Your task to perform on an android device: search for starred emails in the gmail app Image 0: 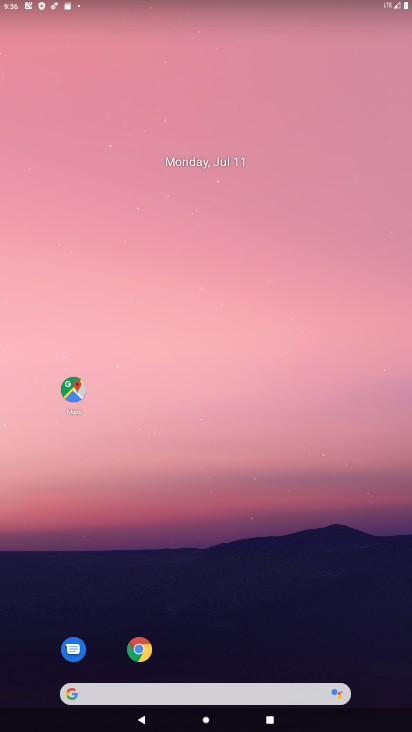
Step 0: drag from (193, 610) to (179, 44)
Your task to perform on an android device: search for starred emails in the gmail app Image 1: 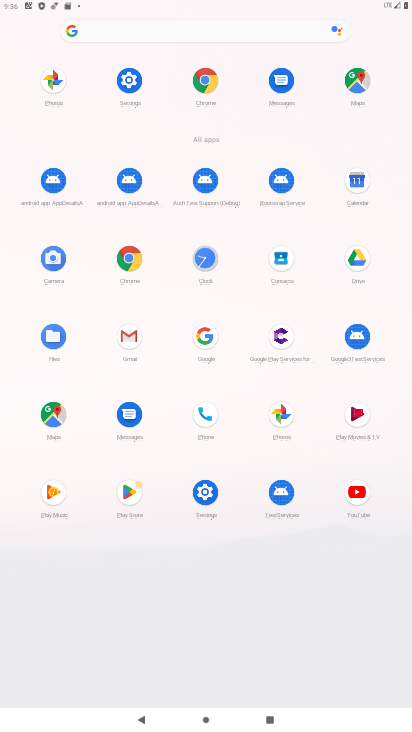
Step 1: click (124, 339)
Your task to perform on an android device: search for starred emails in the gmail app Image 2: 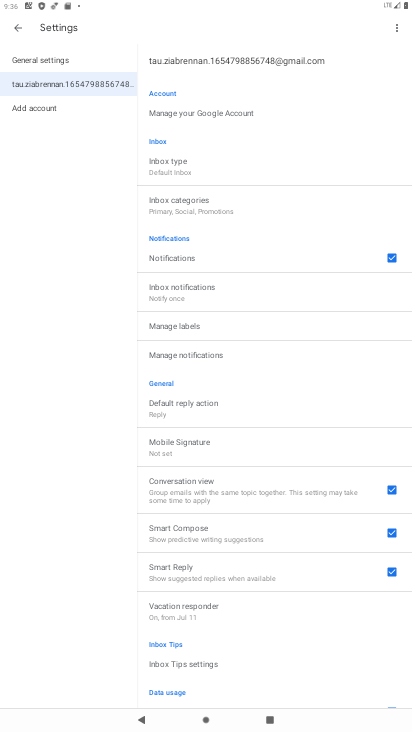
Step 2: click (15, 31)
Your task to perform on an android device: search for starred emails in the gmail app Image 3: 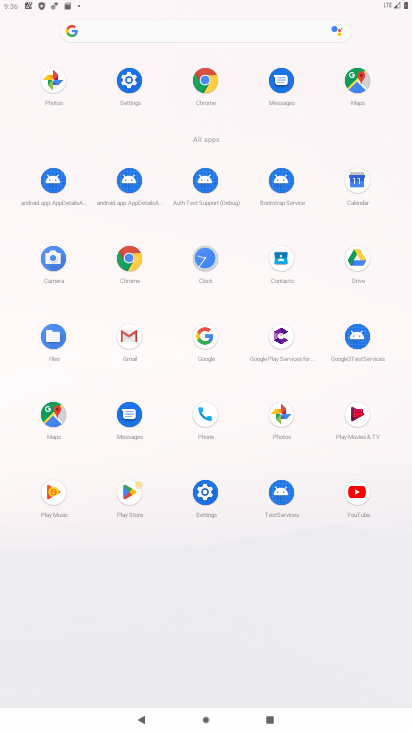
Step 3: click (133, 342)
Your task to perform on an android device: search for starred emails in the gmail app Image 4: 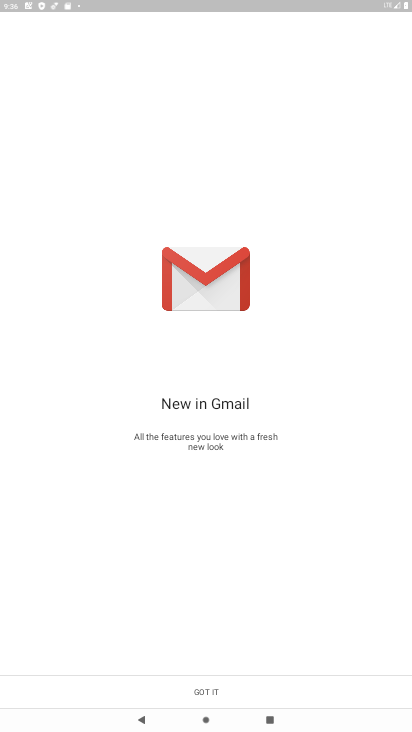
Step 4: click (184, 685)
Your task to perform on an android device: search for starred emails in the gmail app Image 5: 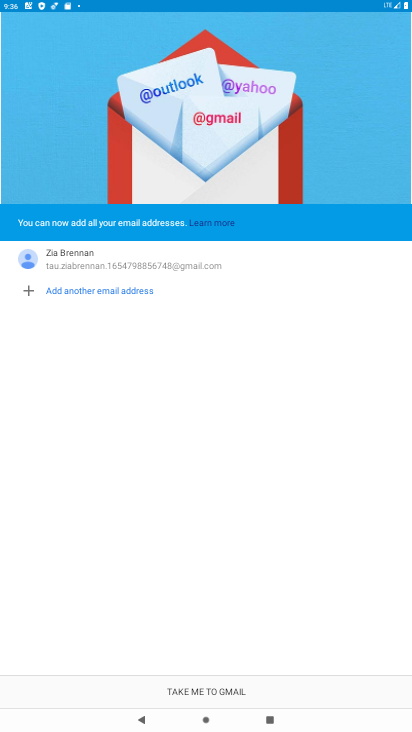
Step 5: click (195, 689)
Your task to perform on an android device: search for starred emails in the gmail app Image 6: 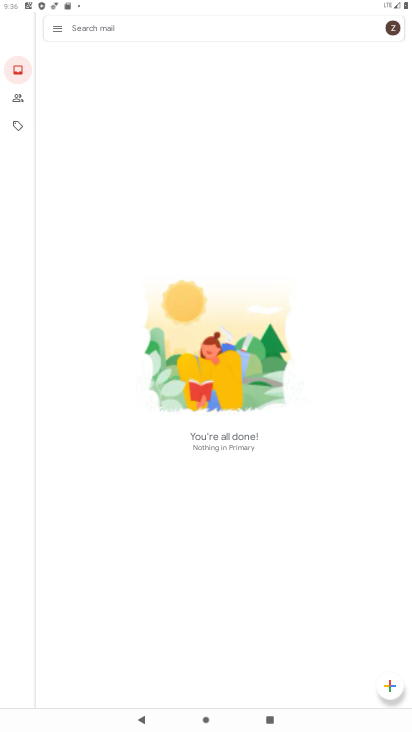
Step 6: click (50, 30)
Your task to perform on an android device: search for starred emails in the gmail app Image 7: 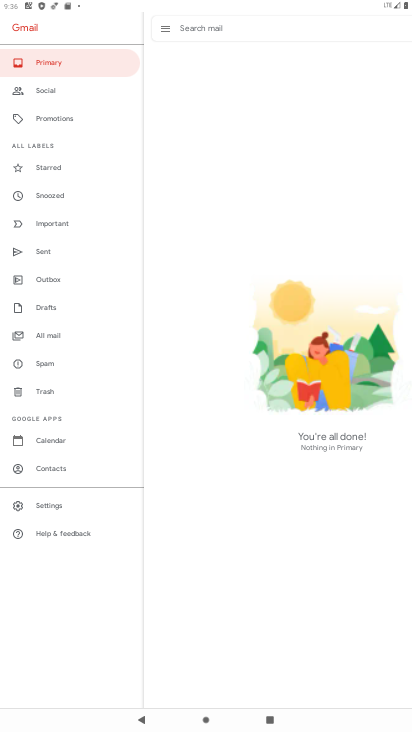
Step 7: click (38, 167)
Your task to perform on an android device: search for starred emails in the gmail app Image 8: 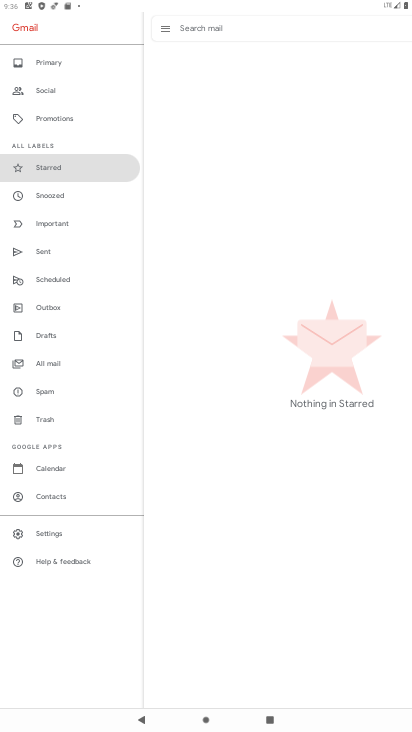
Step 8: task complete